Your task to perform on an android device: check android version Image 0: 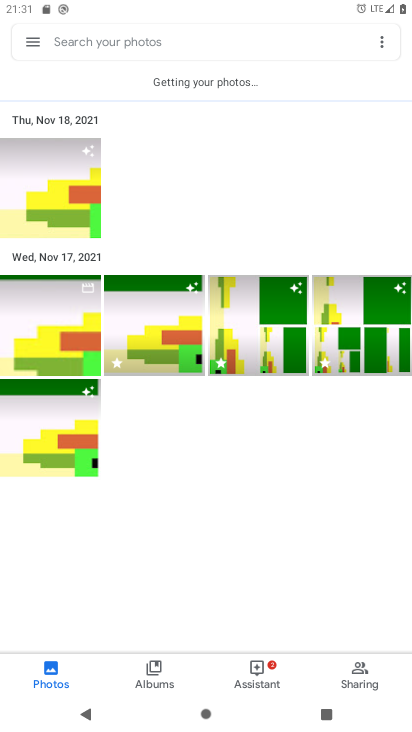
Step 0: press home button
Your task to perform on an android device: check android version Image 1: 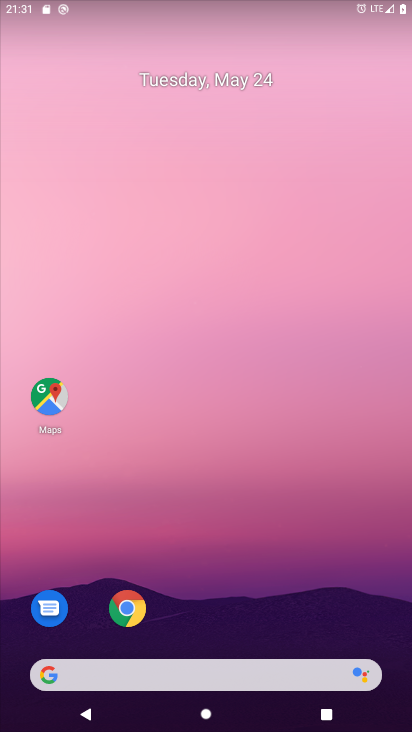
Step 1: drag from (214, 612) to (256, 164)
Your task to perform on an android device: check android version Image 2: 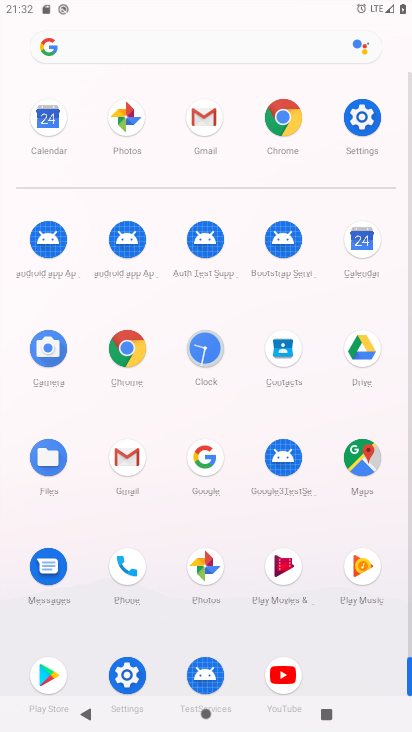
Step 2: click (125, 675)
Your task to perform on an android device: check android version Image 3: 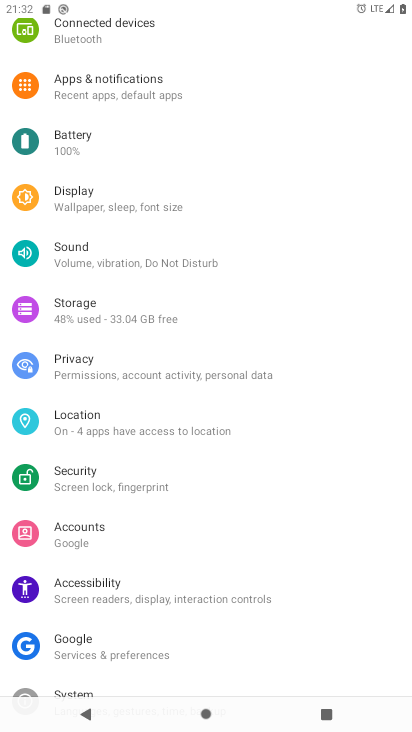
Step 3: drag from (112, 618) to (191, 124)
Your task to perform on an android device: check android version Image 4: 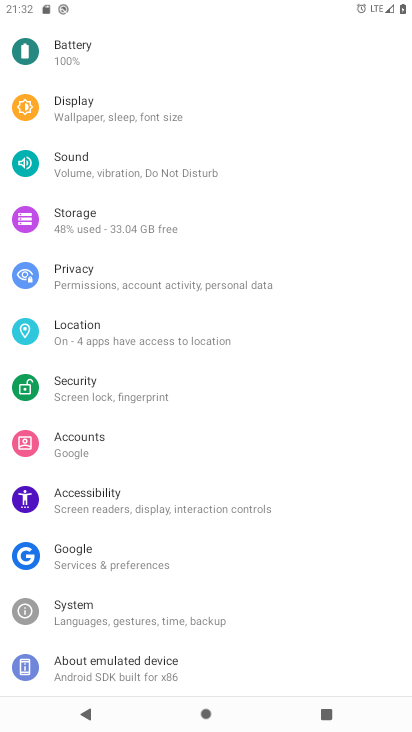
Step 4: drag from (111, 648) to (158, 273)
Your task to perform on an android device: check android version Image 5: 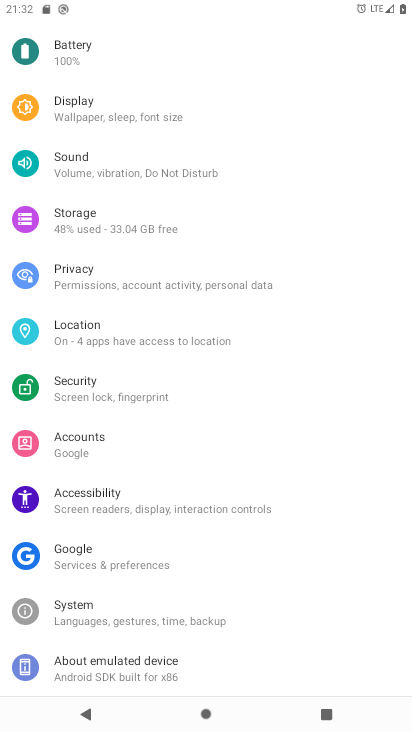
Step 5: click (129, 663)
Your task to perform on an android device: check android version Image 6: 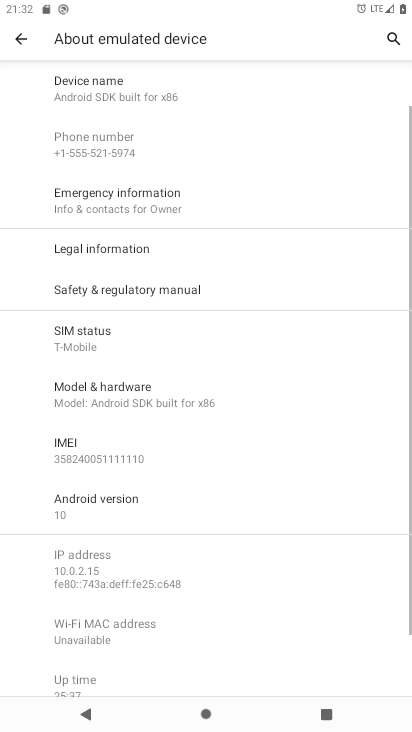
Step 6: click (108, 509)
Your task to perform on an android device: check android version Image 7: 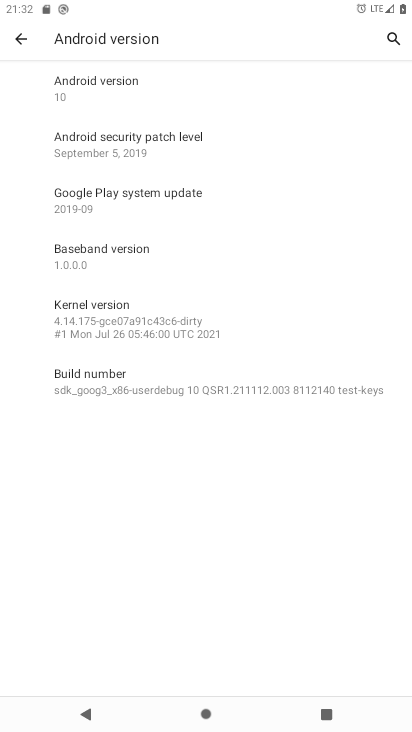
Step 7: task complete